Your task to perform on an android device: find snoozed emails in the gmail app Image 0: 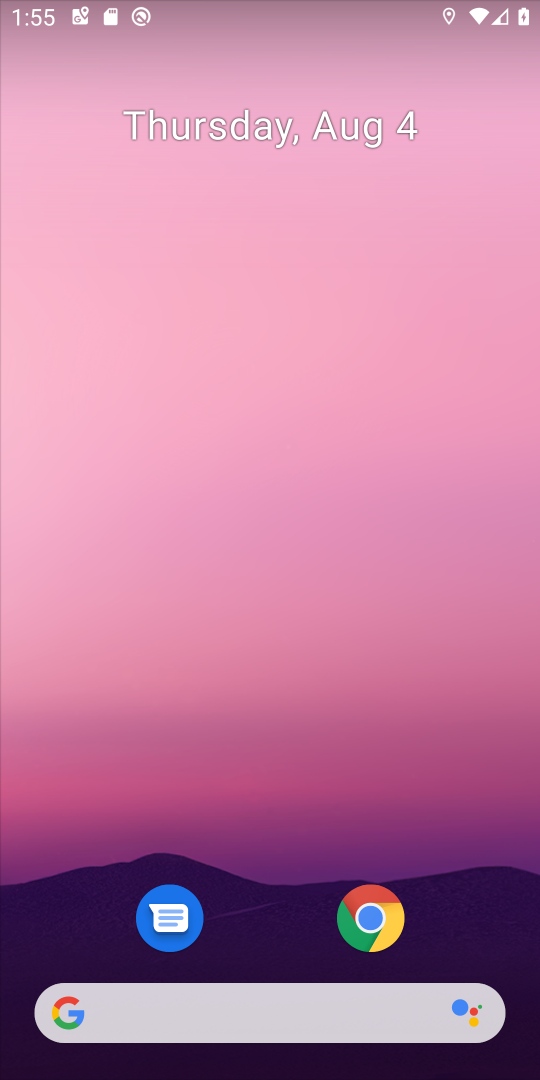
Step 0: drag from (274, 828) to (297, 290)
Your task to perform on an android device: find snoozed emails in the gmail app Image 1: 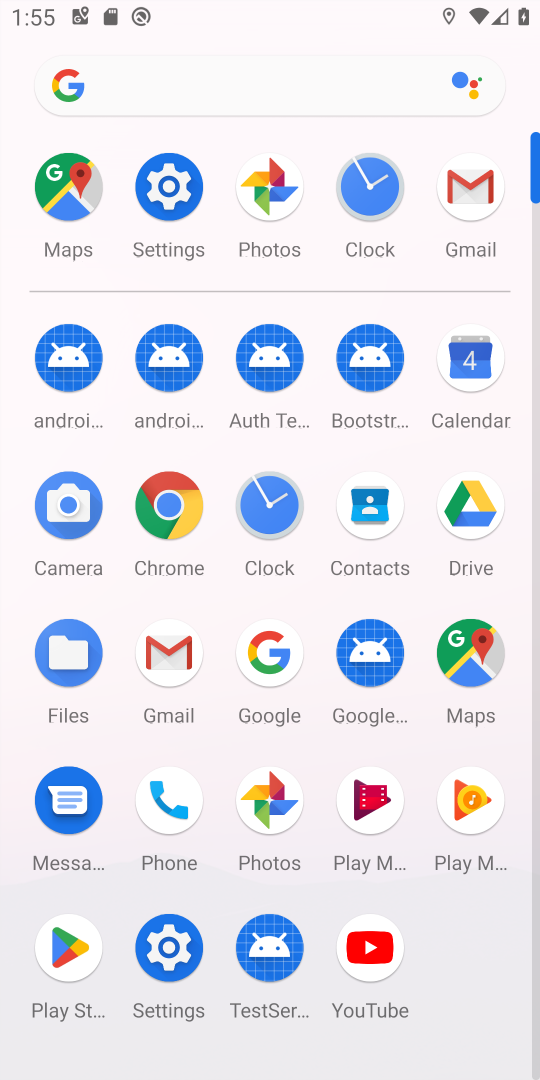
Step 1: click (448, 216)
Your task to perform on an android device: find snoozed emails in the gmail app Image 2: 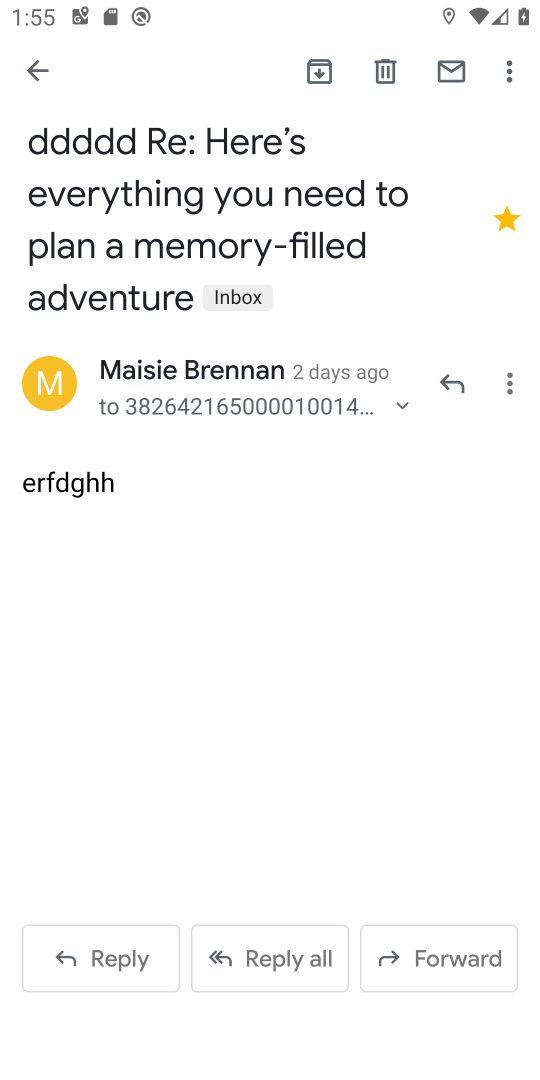
Step 2: click (35, 75)
Your task to perform on an android device: find snoozed emails in the gmail app Image 3: 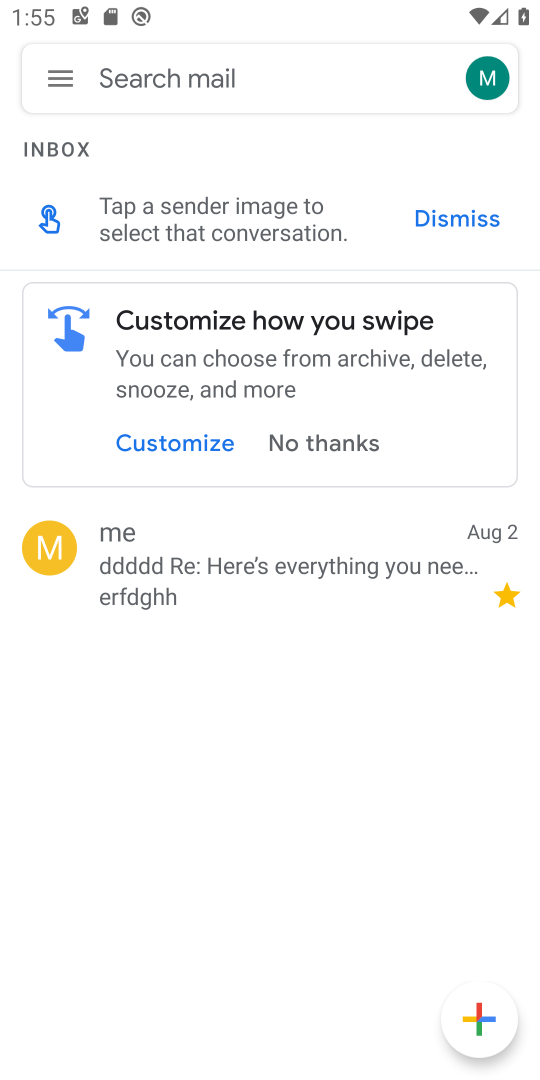
Step 3: click (53, 82)
Your task to perform on an android device: find snoozed emails in the gmail app Image 4: 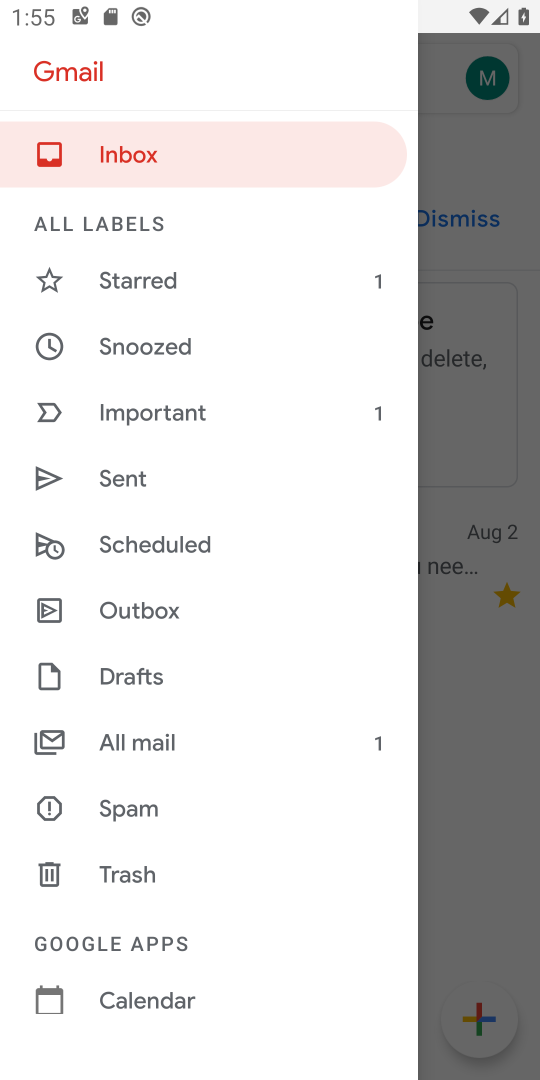
Step 4: click (182, 337)
Your task to perform on an android device: find snoozed emails in the gmail app Image 5: 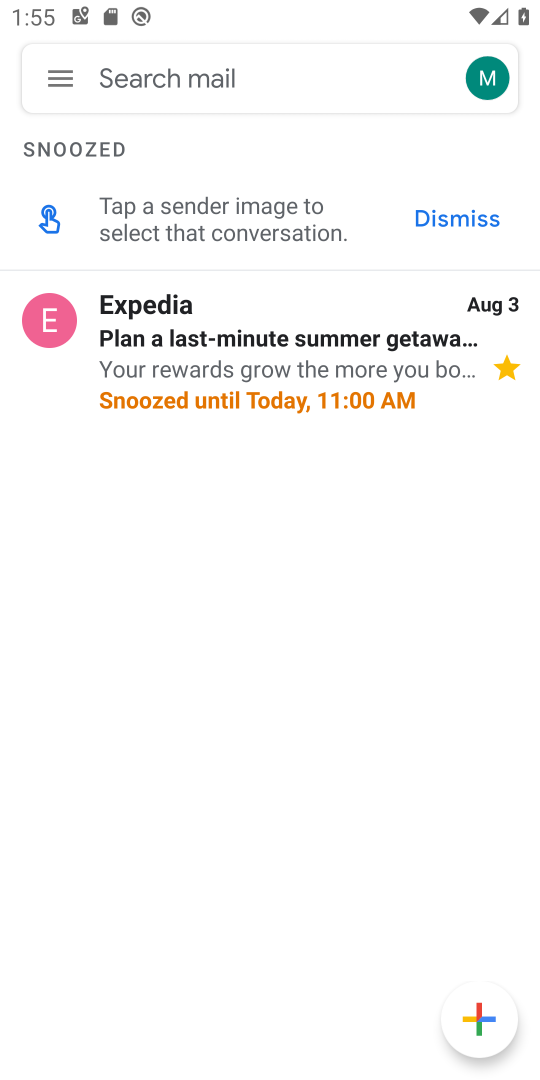
Step 5: task complete